Your task to perform on an android device: turn off location Image 0: 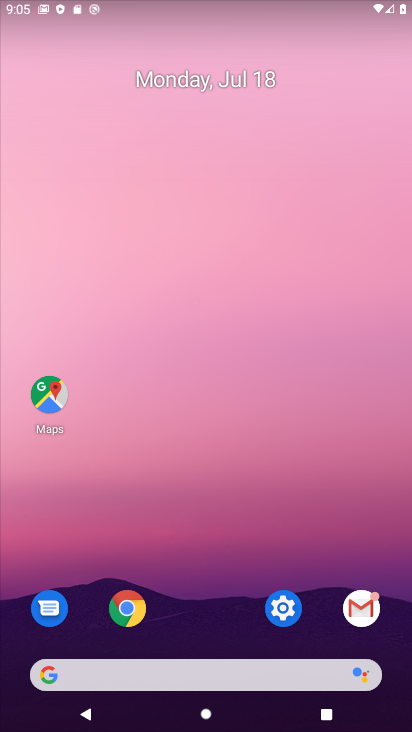
Step 0: drag from (253, 680) to (353, 249)
Your task to perform on an android device: turn off location Image 1: 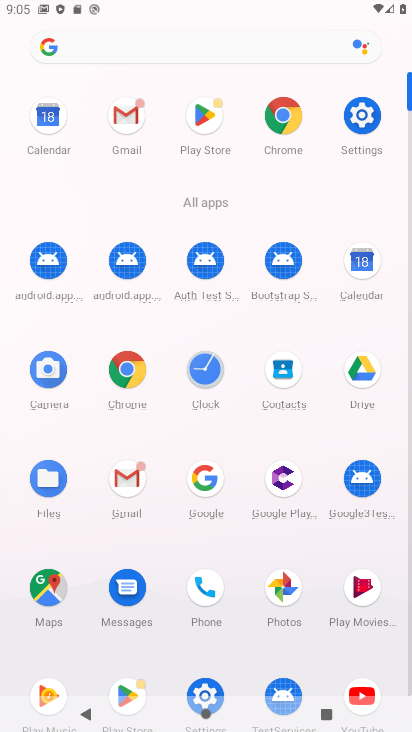
Step 1: click (359, 110)
Your task to perform on an android device: turn off location Image 2: 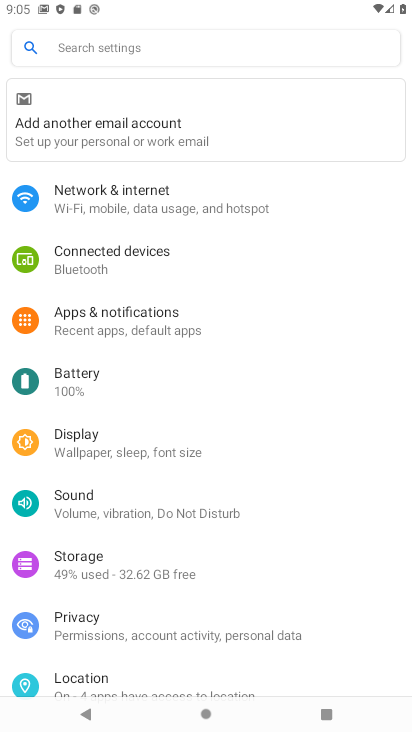
Step 2: click (100, 680)
Your task to perform on an android device: turn off location Image 3: 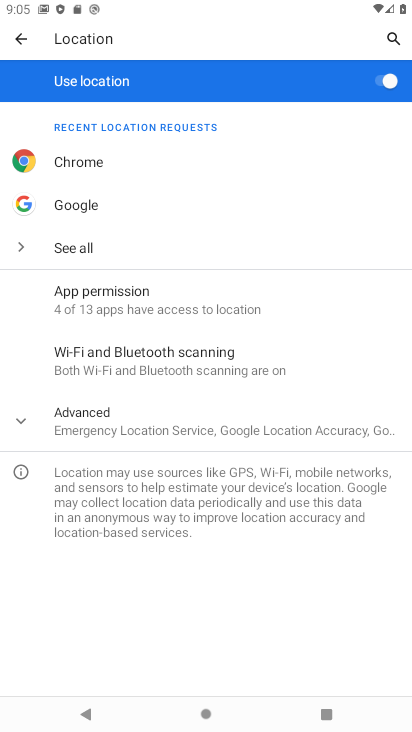
Step 3: click (388, 88)
Your task to perform on an android device: turn off location Image 4: 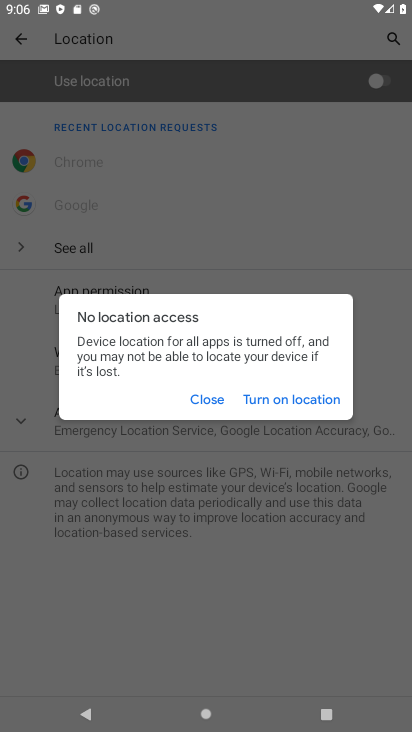
Step 4: task complete